Your task to perform on an android device: turn pop-ups on in chrome Image 0: 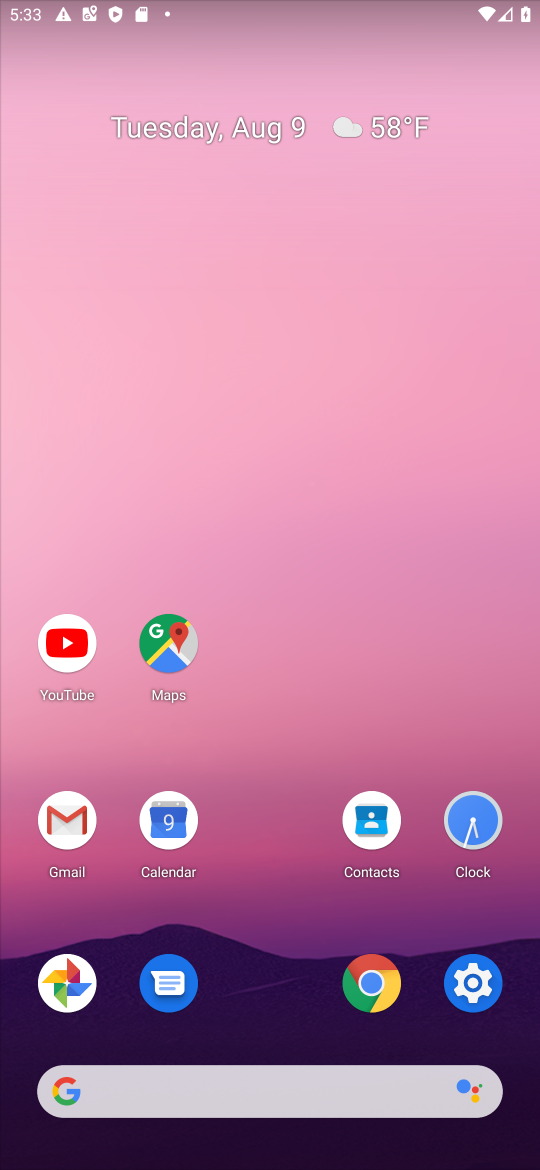
Step 0: click (365, 981)
Your task to perform on an android device: turn pop-ups on in chrome Image 1: 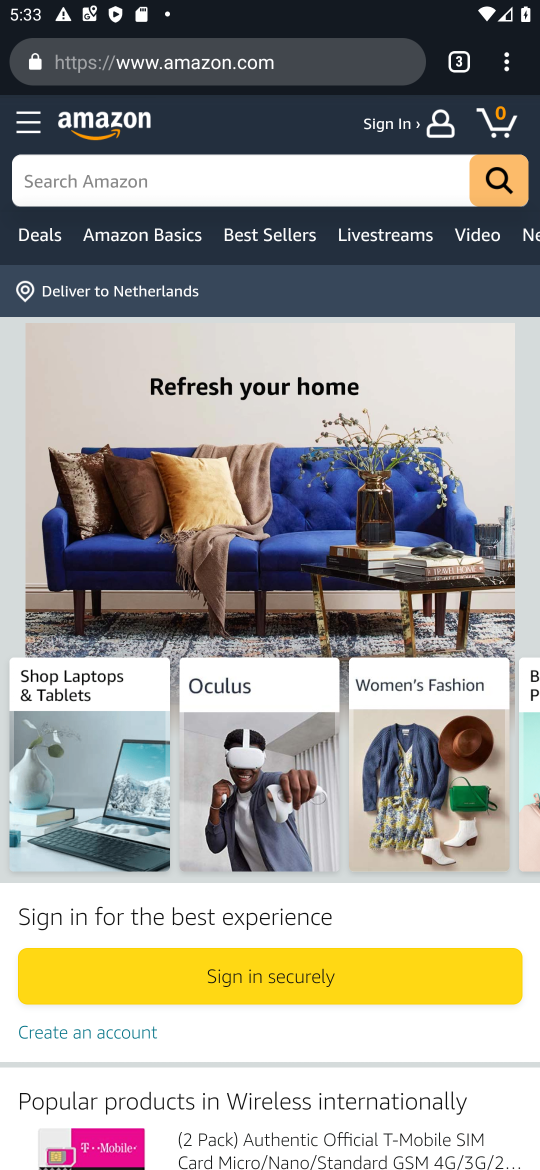
Step 1: click (504, 56)
Your task to perform on an android device: turn pop-ups on in chrome Image 2: 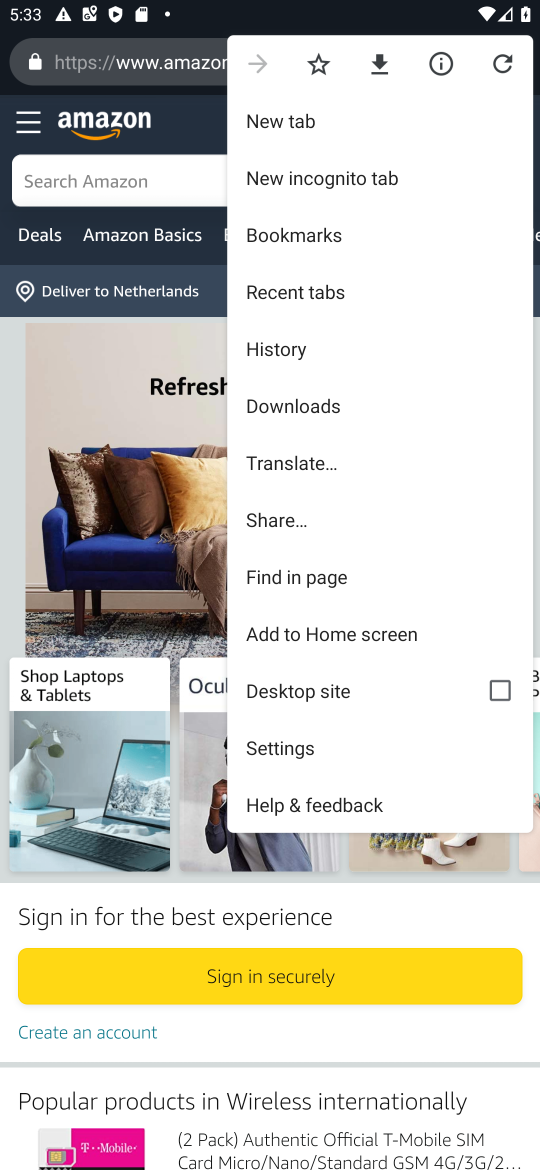
Step 2: click (274, 732)
Your task to perform on an android device: turn pop-ups on in chrome Image 3: 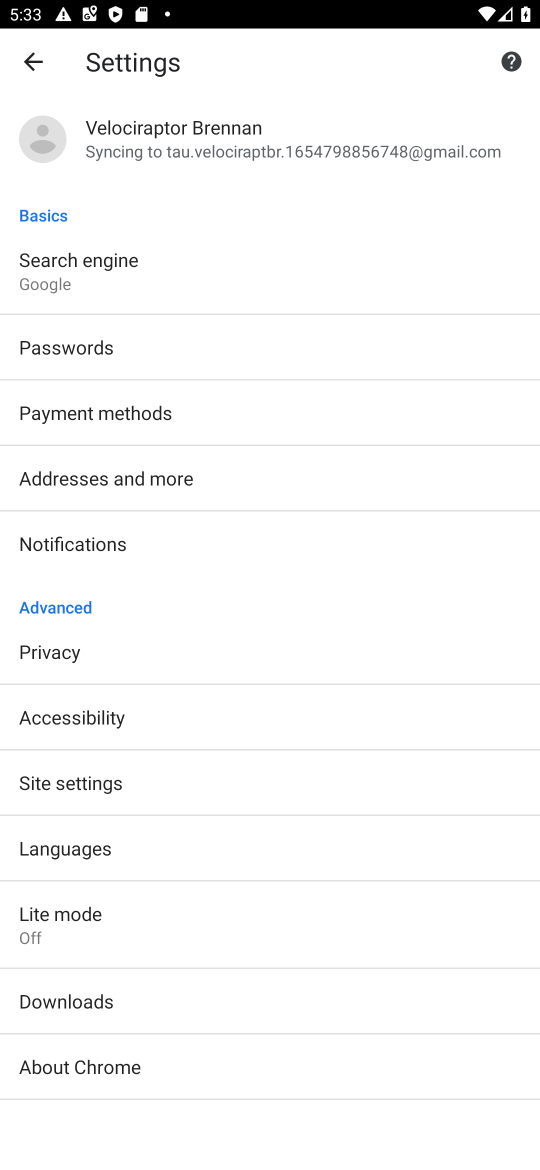
Step 3: click (73, 779)
Your task to perform on an android device: turn pop-ups on in chrome Image 4: 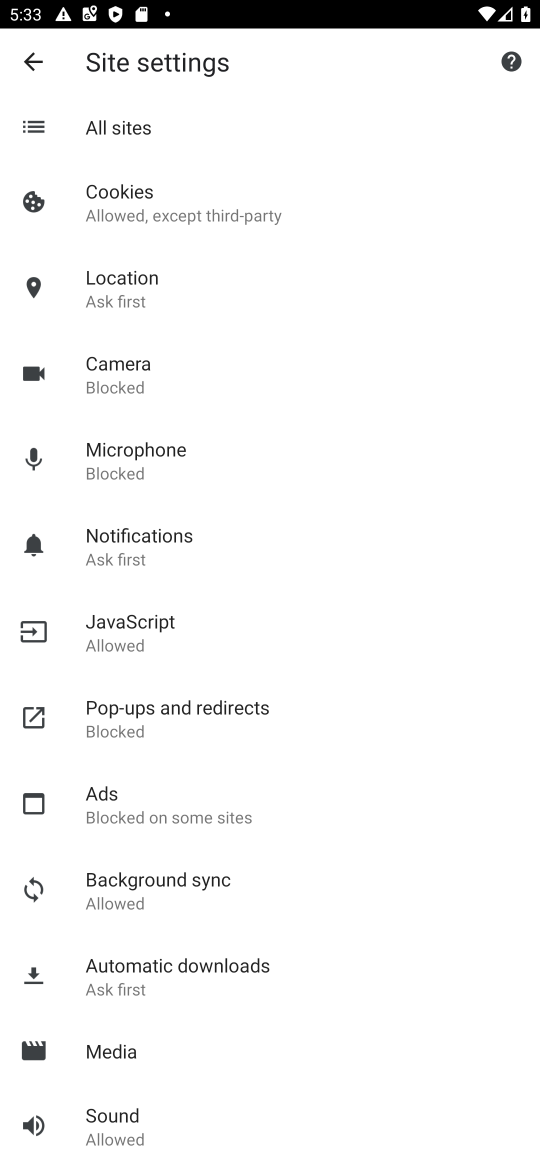
Step 4: click (144, 697)
Your task to perform on an android device: turn pop-ups on in chrome Image 5: 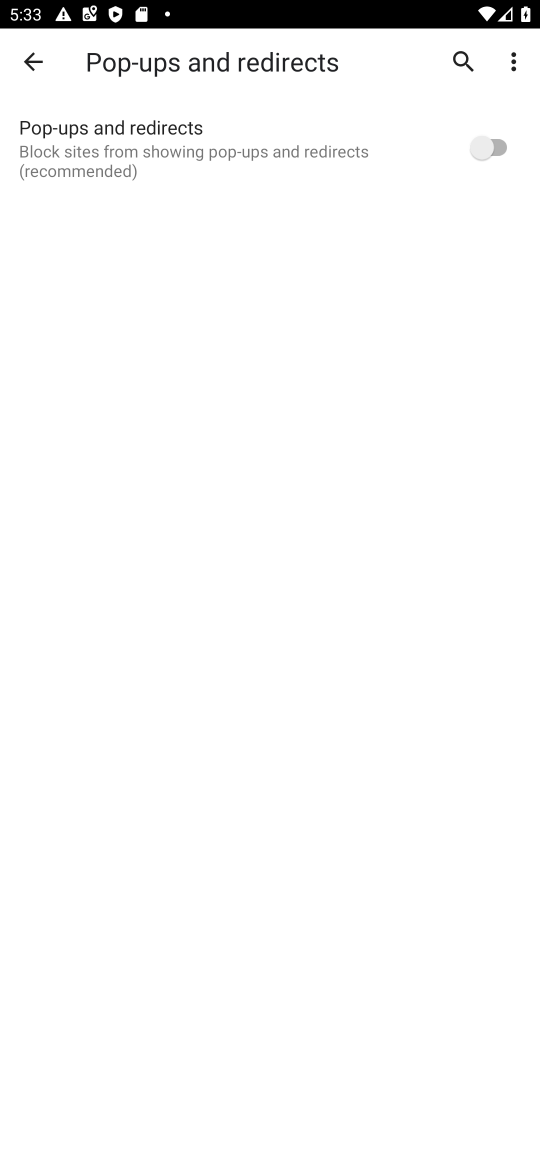
Step 5: click (485, 143)
Your task to perform on an android device: turn pop-ups on in chrome Image 6: 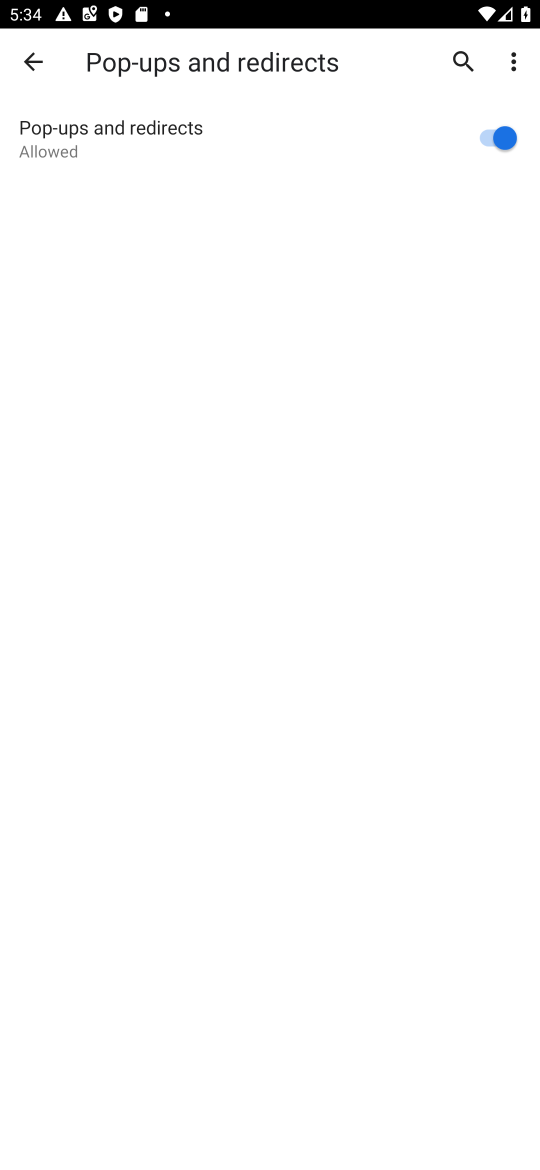
Step 6: task complete